Your task to perform on an android device: Search for logitech g pro on newegg, select the first entry, and add it to the cart. Image 0: 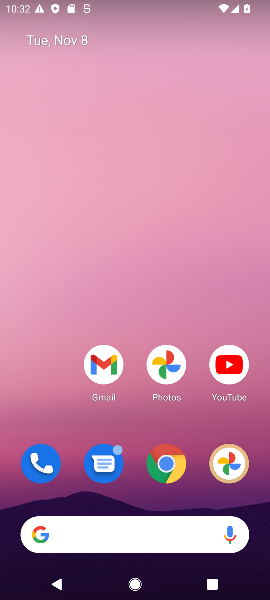
Step 0: click (165, 453)
Your task to perform on an android device: Search for logitech g pro on newegg, select the first entry, and add it to the cart. Image 1: 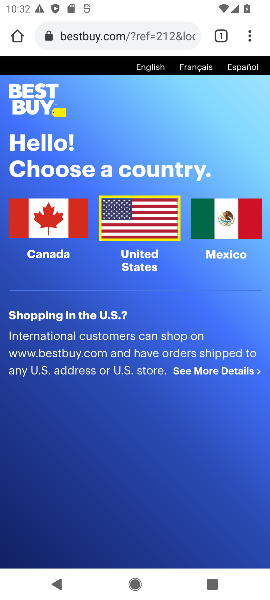
Step 1: click (134, 33)
Your task to perform on an android device: Search for logitech g pro on newegg, select the first entry, and add it to the cart. Image 2: 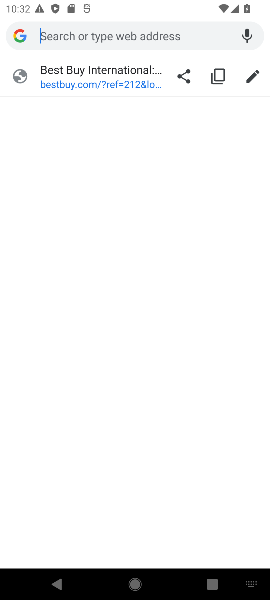
Step 2: type "newegg"
Your task to perform on an android device: Search for logitech g pro on newegg, select the first entry, and add it to the cart. Image 3: 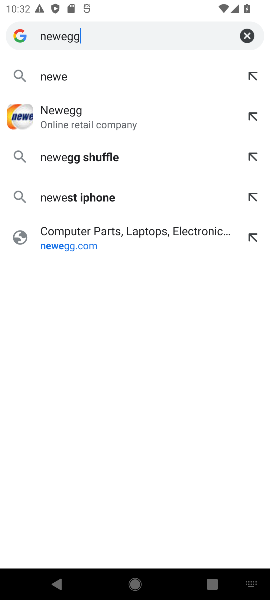
Step 3: press enter
Your task to perform on an android device: Search for logitech g pro on newegg, select the first entry, and add it to the cart. Image 4: 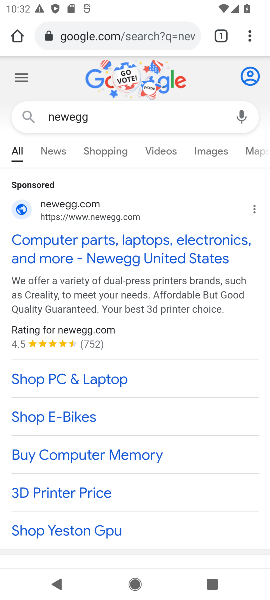
Step 4: click (90, 212)
Your task to perform on an android device: Search for logitech g pro on newegg, select the first entry, and add it to the cart. Image 5: 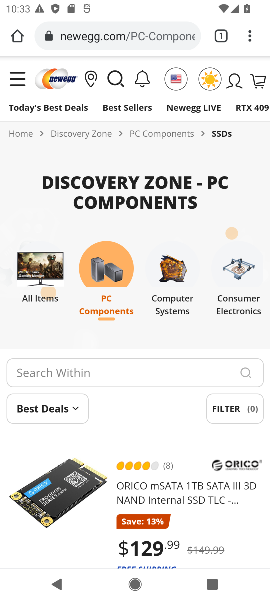
Step 5: click (118, 81)
Your task to perform on an android device: Search for logitech g pro on newegg, select the first entry, and add it to the cart. Image 6: 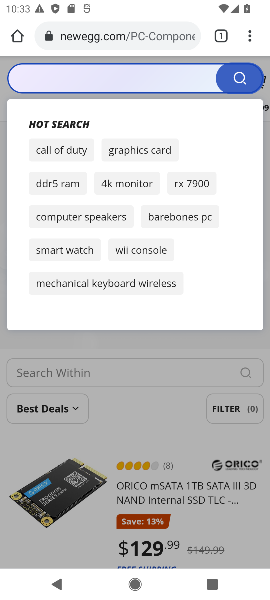
Step 6: click (155, 78)
Your task to perform on an android device: Search for logitech g pro on newegg, select the first entry, and add it to the cart. Image 7: 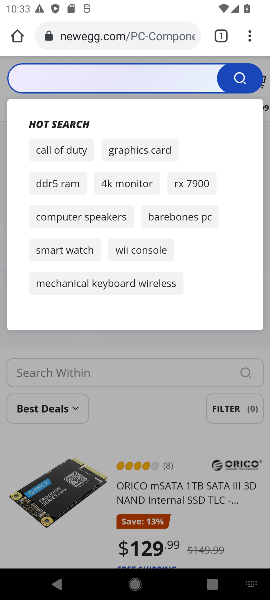
Step 7: type "logitech g pro"
Your task to perform on an android device: Search for logitech g pro on newegg, select the first entry, and add it to the cart. Image 8: 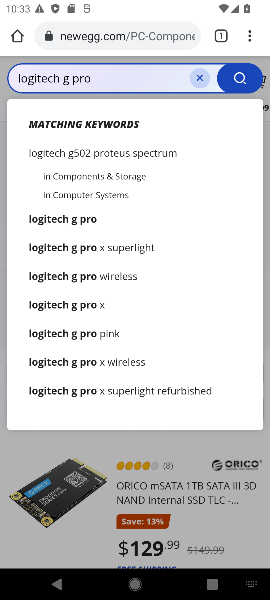
Step 8: click (73, 219)
Your task to perform on an android device: Search for logitech g pro on newegg, select the first entry, and add it to the cart. Image 9: 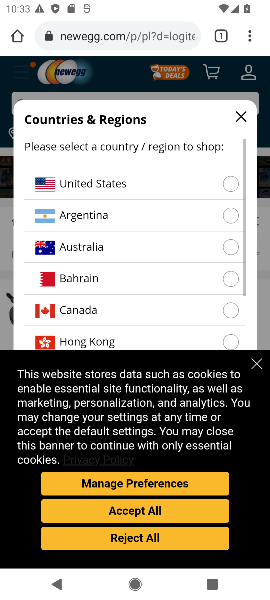
Step 9: click (173, 511)
Your task to perform on an android device: Search for logitech g pro on newegg, select the first entry, and add it to the cart. Image 10: 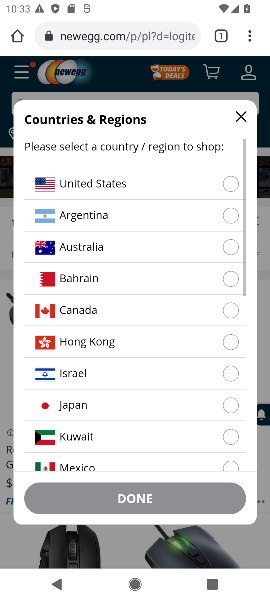
Step 10: click (234, 180)
Your task to perform on an android device: Search for logitech g pro on newegg, select the first entry, and add it to the cart. Image 11: 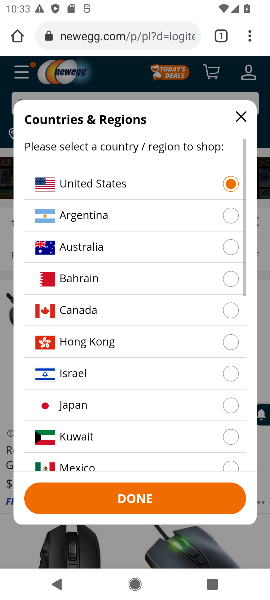
Step 11: click (201, 495)
Your task to perform on an android device: Search for logitech g pro on newegg, select the first entry, and add it to the cart. Image 12: 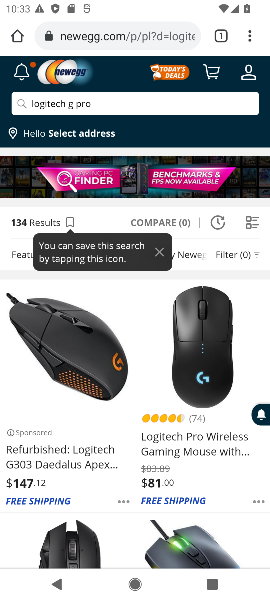
Step 12: drag from (119, 427) to (130, 268)
Your task to perform on an android device: Search for logitech g pro on newegg, select the first entry, and add it to the cart. Image 13: 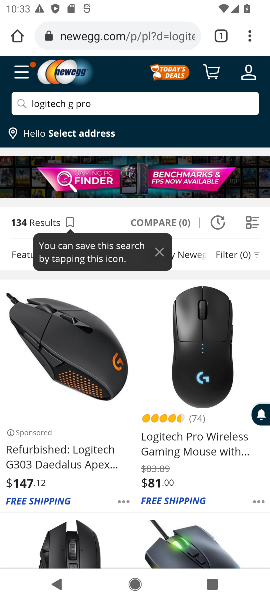
Step 13: drag from (145, 448) to (161, 242)
Your task to perform on an android device: Search for logitech g pro on newegg, select the first entry, and add it to the cart. Image 14: 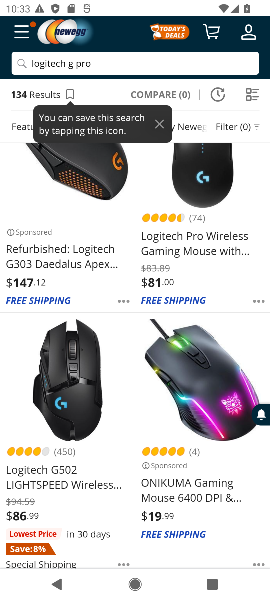
Step 14: drag from (113, 518) to (137, 219)
Your task to perform on an android device: Search for logitech g pro on newegg, select the first entry, and add it to the cart. Image 15: 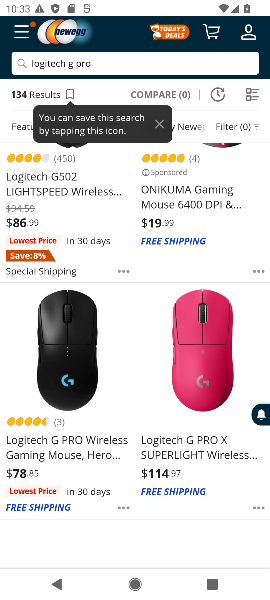
Step 15: click (56, 357)
Your task to perform on an android device: Search for logitech g pro on newegg, select the first entry, and add it to the cart. Image 16: 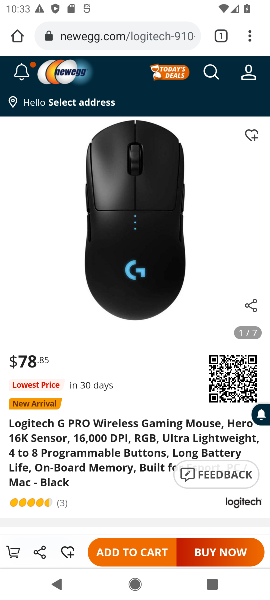
Step 16: click (134, 551)
Your task to perform on an android device: Search for logitech g pro on newegg, select the first entry, and add it to the cart. Image 17: 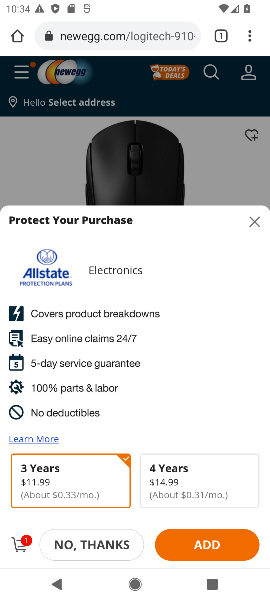
Step 17: click (253, 217)
Your task to perform on an android device: Search for logitech g pro on newegg, select the first entry, and add it to the cart. Image 18: 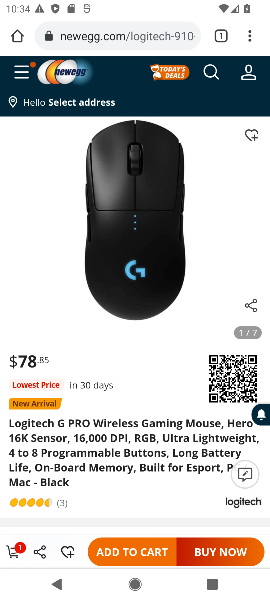
Step 18: task complete